Your task to perform on an android device: Find coffee shops on Maps Image 0: 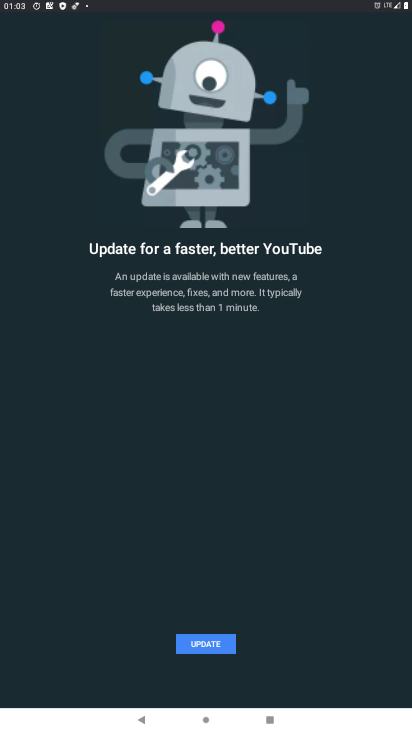
Step 0: press home button
Your task to perform on an android device: Find coffee shops on Maps Image 1: 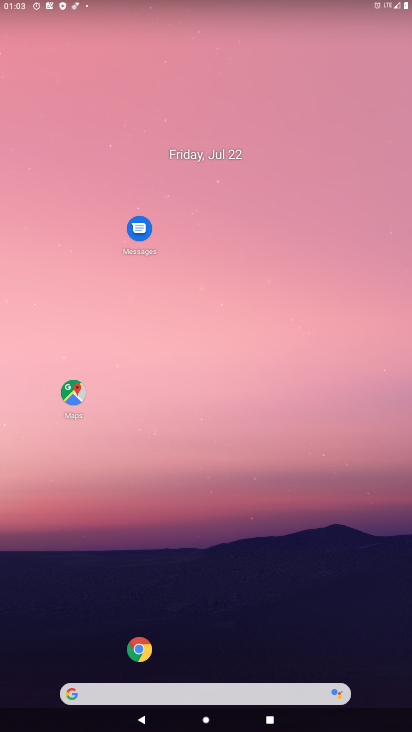
Step 1: click (70, 377)
Your task to perform on an android device: Find coffee shops on Maps Image 2: 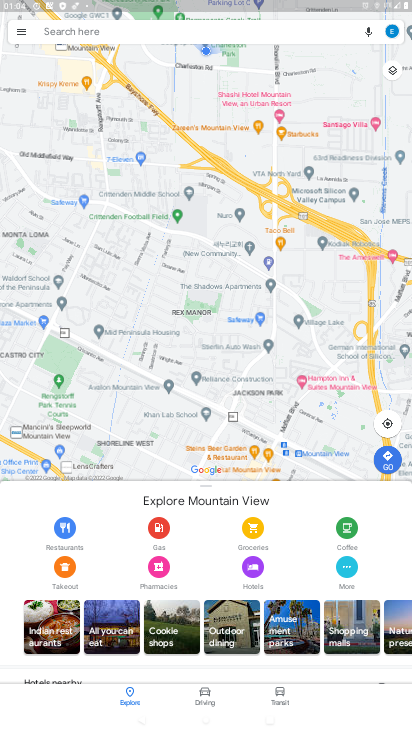
Step 2: click (64, 38)
Your task to perform on an android device: Find coffee shops on Maps Image 3: 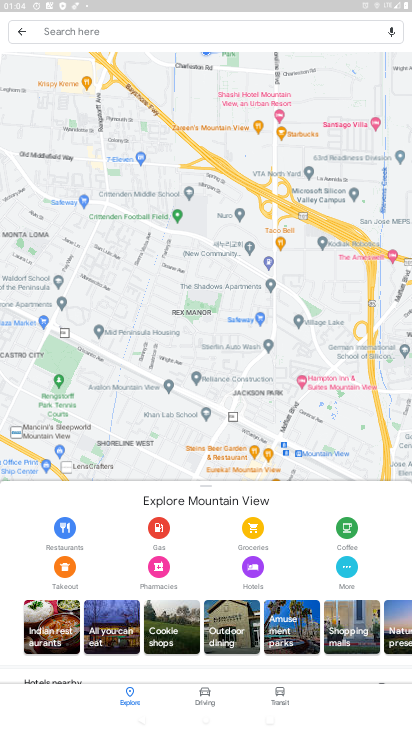
Step 3: click (67, 29)
Your task to perform on an android device: Find coffee shops on Maps Image 4: 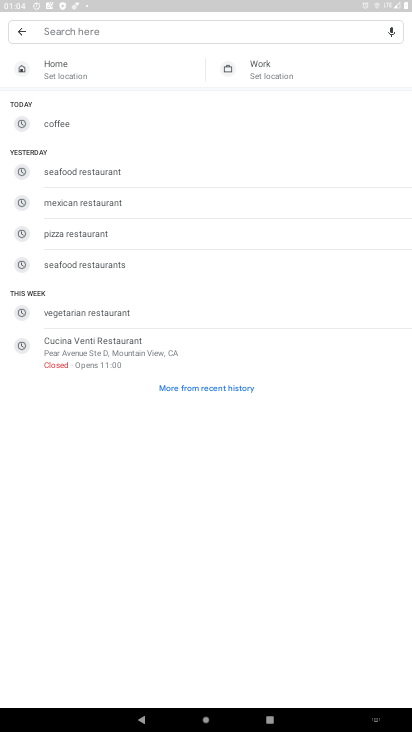
Step 4: type "coffee shops"
Your task to perform on an android device: Find coffee shops on Maps Image 5: 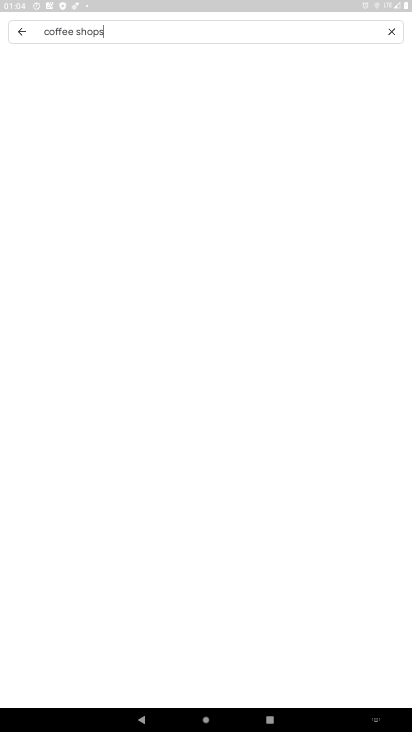
Step 5: type ""
Your task to perform on an android device: Find coffee shops on Maps Image 6: 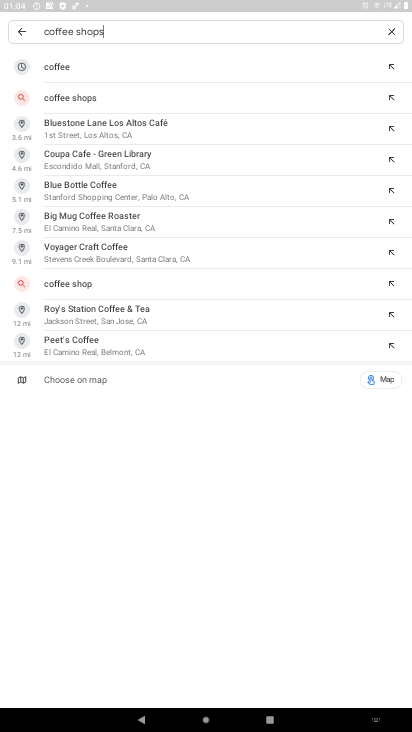
Step 6: type ""
Your task to perform on an android device: Find coffee shops on Maps Image 7: 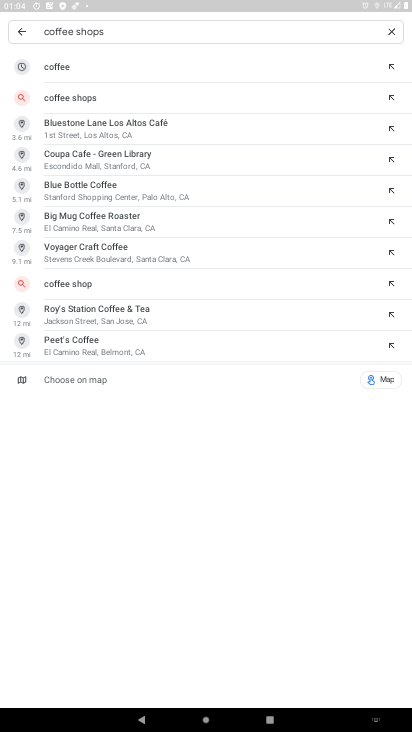
Step 7: click (75, 104)
Your task to perform on an android device: Find coffee shops on Maps Image 8: 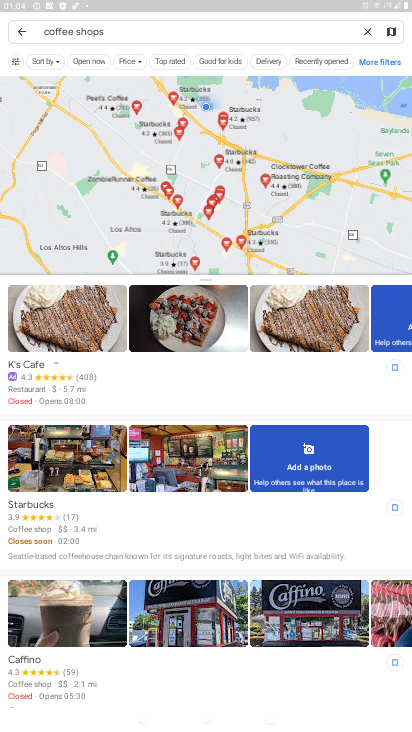
Step 8: task complete